Your task to perform on an android device: Open the calendar app, open the side menu, and click the "Day" option Image 0: 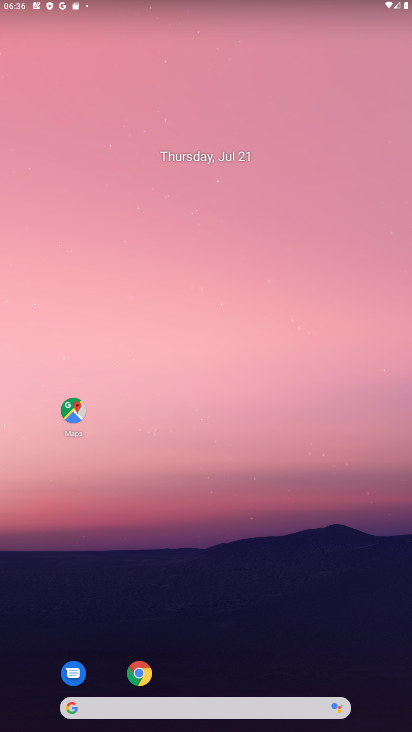
Step 0: click (212, 705)
Your task to perform on an android device: Open the calendar app, open the side menu, and click the "Day" option Image 1: 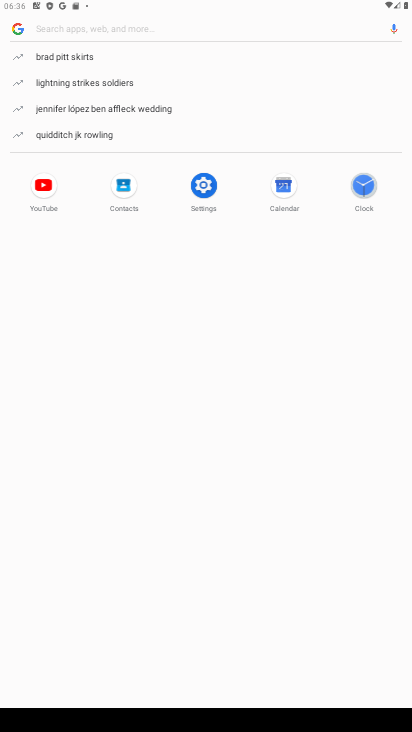
Step 1: press home button
Your task to perform on an android device: Open the calendar app, open the side menu, and click the "Day" option Image 2: 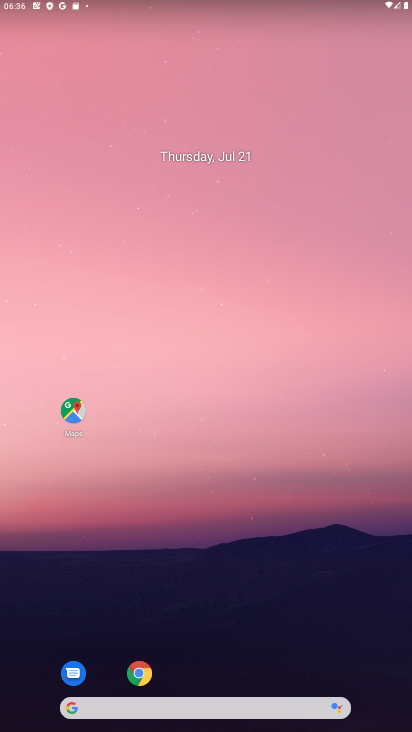
Step 2: drag from (177, 608) to (193, 110)
Your task to perform on an android device: Open the calendar app, open the side menu, and click the "Day" option Image 3: 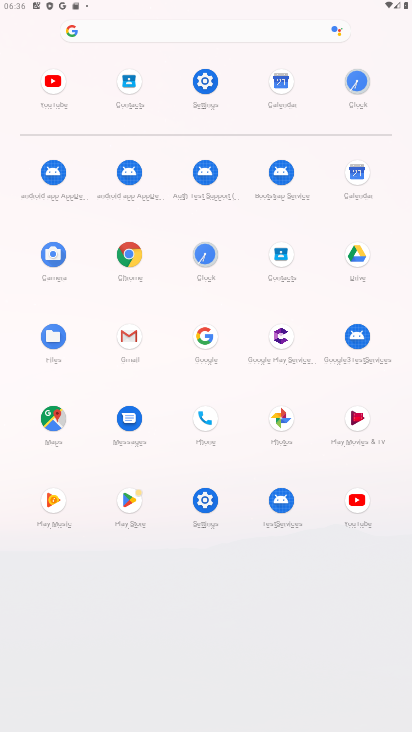
Step 3: click (358, 184)
Your task to perform on an android device: Open the calendar app, open the side menu, and click the "Day" option Image 4: 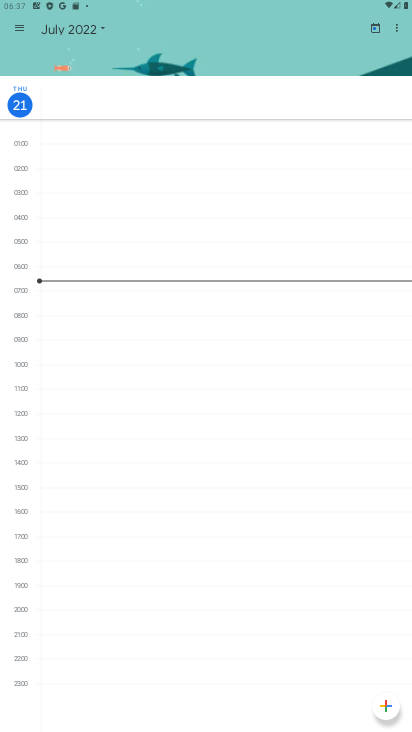
Step 4: click (17, 40)
Your task to perform on an android device: Open the calendar app, open the side menu, and click the "Day" option Image 5: 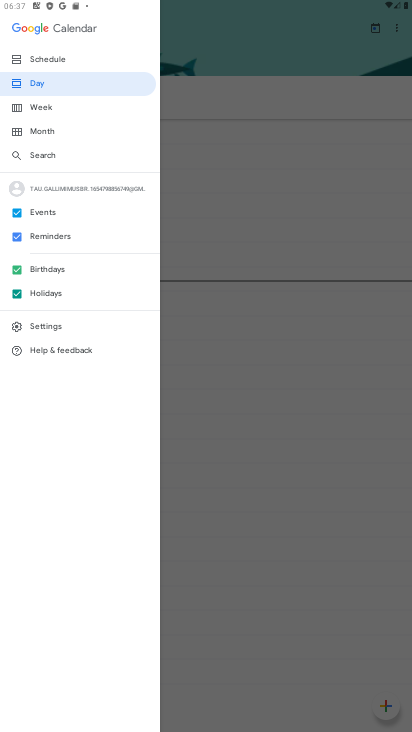
Step 5: click (17, 30)
Your task to perform on an android device: Open the calendar app, open the side menu, and click the "Day" option Image 6: 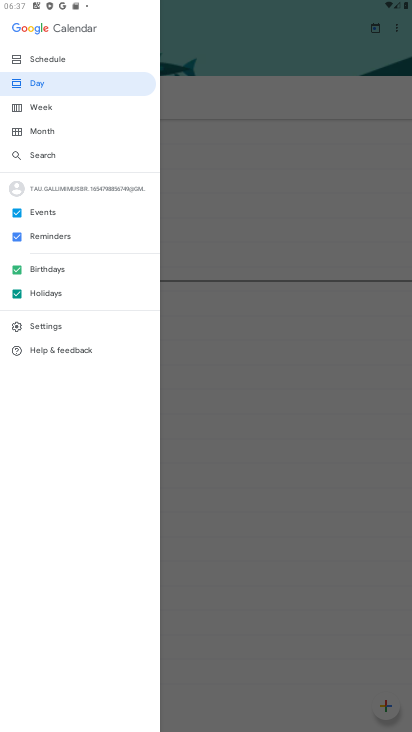
Step 6: click (24, 32)
Your task to perform on an android device: Open the calendar app, open the side menu, and click the "Day" option Image 7: 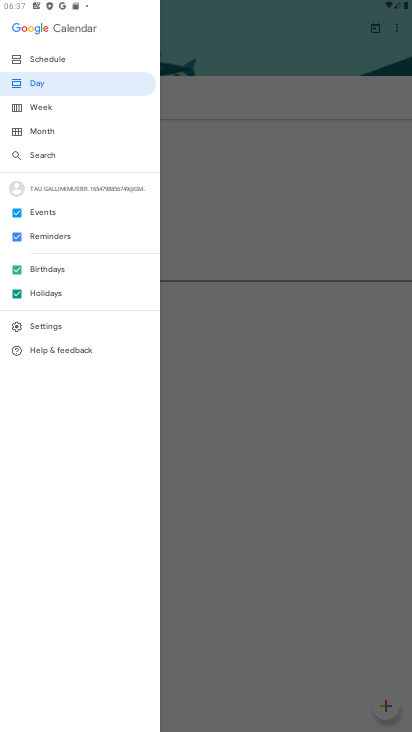
Step 7: click (28, 82)
Your task to perform on an android device: Open the calendar app, open the side menu, and click the "Day" option Image 8: 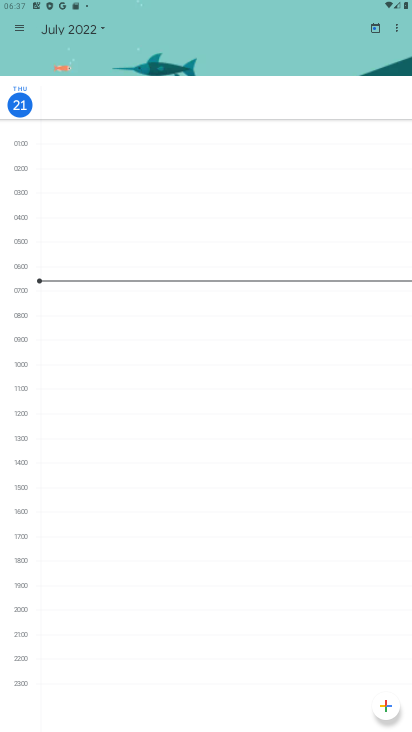
Step 8: task complete